Your task to perform on an android device: change your default location settings in chrome Image 0: 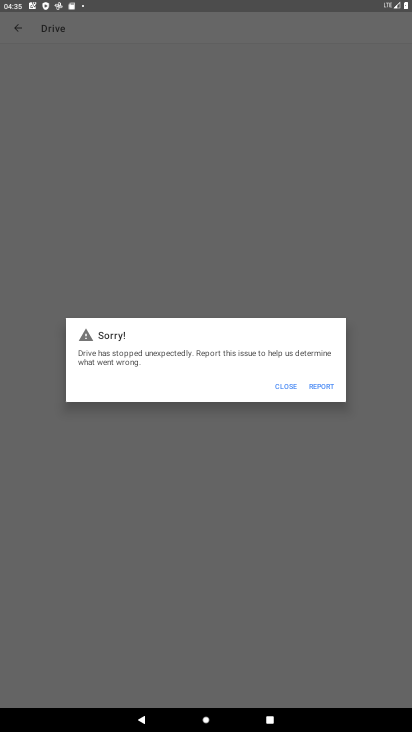
Step 0: press home button
Your task to perform on an android device: change your default location settings in chrome Image 1: 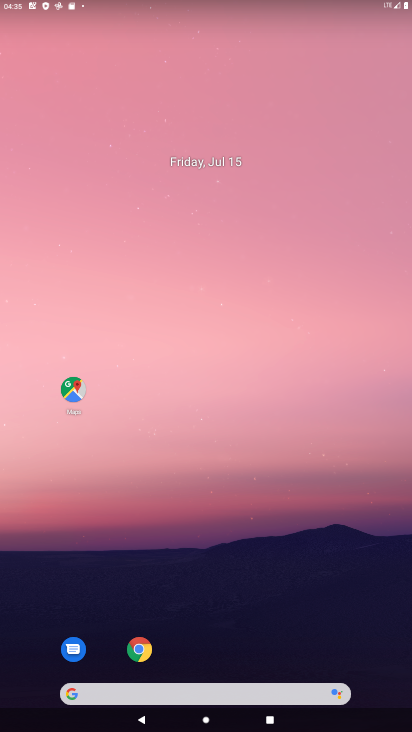
Step 1: drag from (314, 624) to (288, 88)
Your task to perform on an android device: change your default location settings in chrome Image 2: 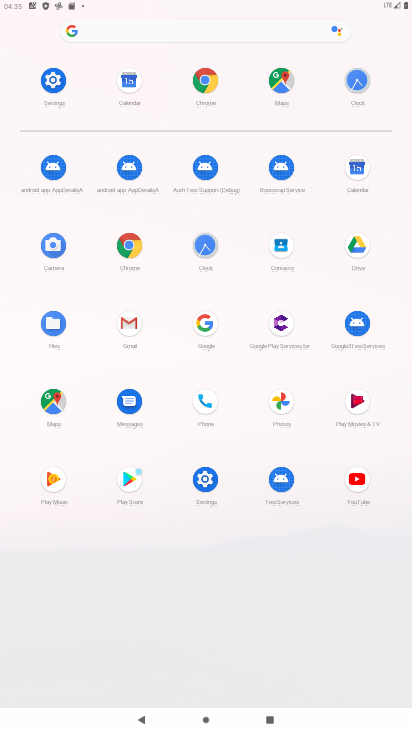
Step 2: click (212, 84)
Your task to perform on an android device: change your default location settings in chrome Image 3: 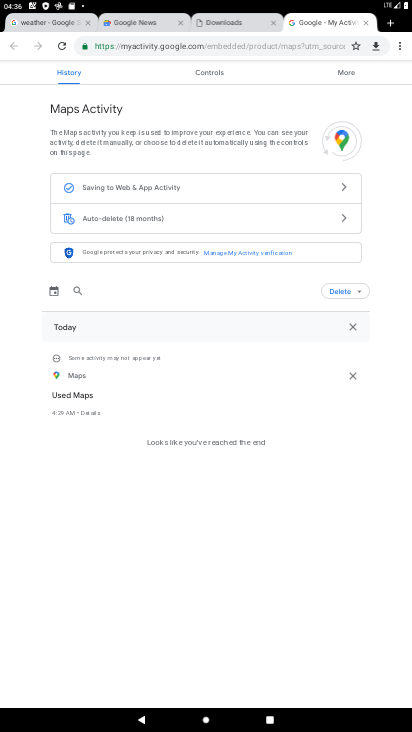
Step 3: drag from (403, 42) to (312, 306)
Your task to perform on an android device: change your default location settings in chrome Image 4: 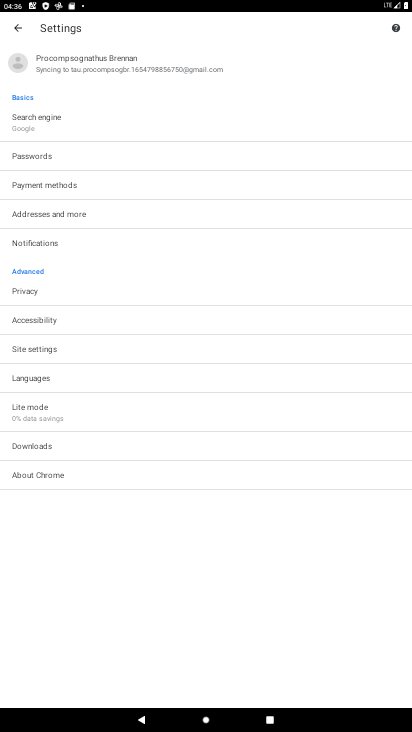
Step 4: click (36, 352)
Your task to perform on an android device: change your default location settings in chrome Image 5: 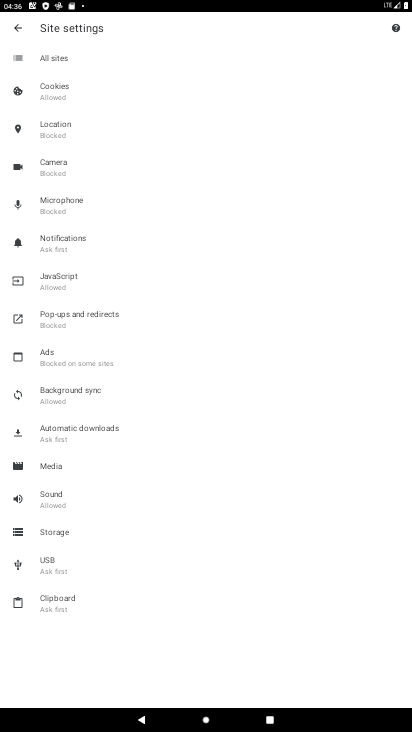
Step 5: click (56, 124)
Your task to perform on an android device: change your default location settings in chrome Image 6: 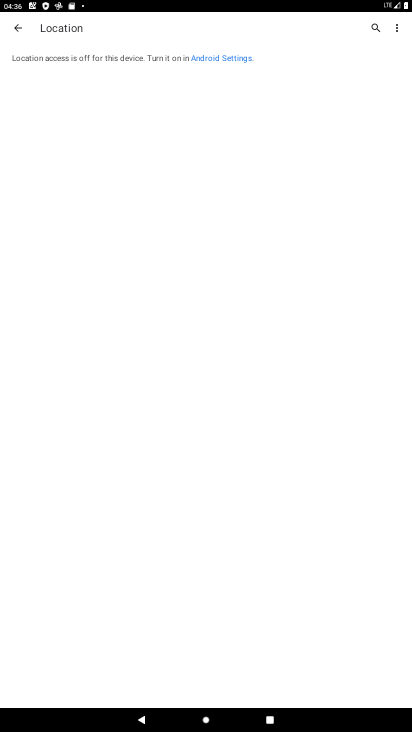
Step 6: task complete